Your task to perform on an android device: empty trash in google photos Image 0: 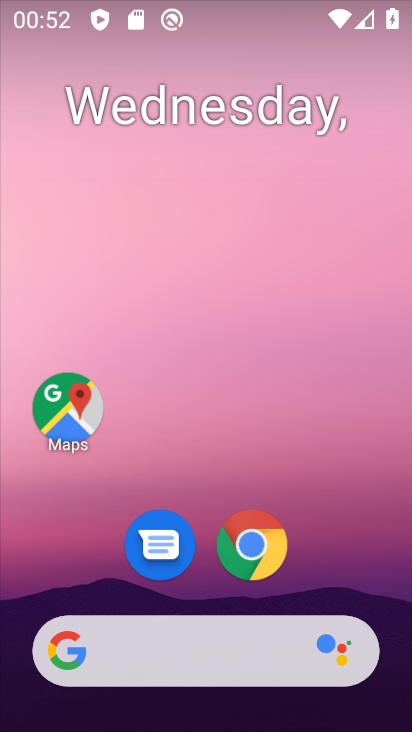
Step 0: drag from (327, 527) to (311, 131)
Your task to perform on an android device: empty trash in google photos Image 1: 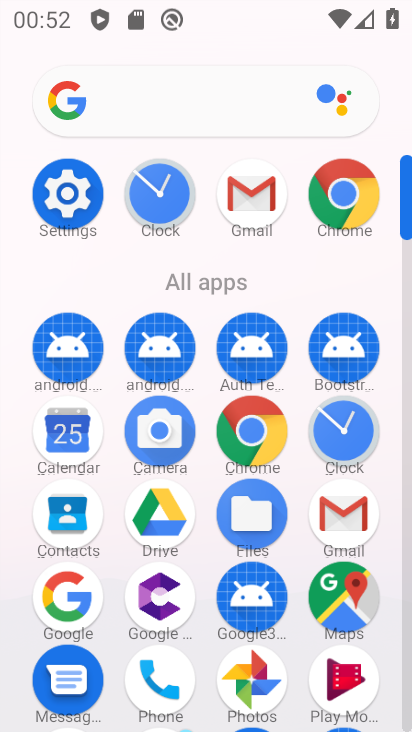
Step 1: click (246, 667)
Your task to perform on an android device: empty trash in google photos Image 2: 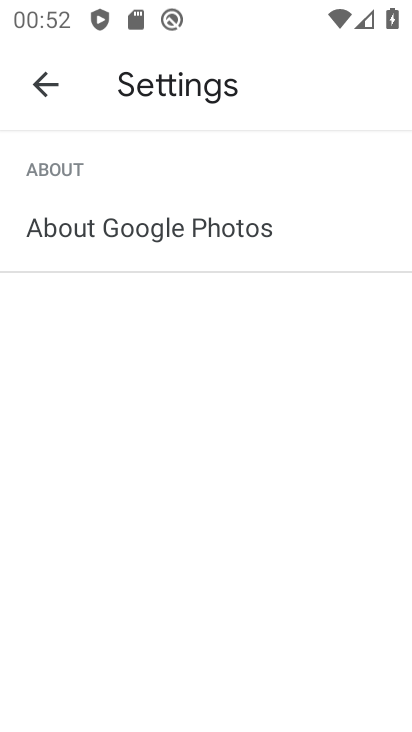
Step 2: click (51, 95)
Your task to perform on an android device: empty trash in google photos Image 3: 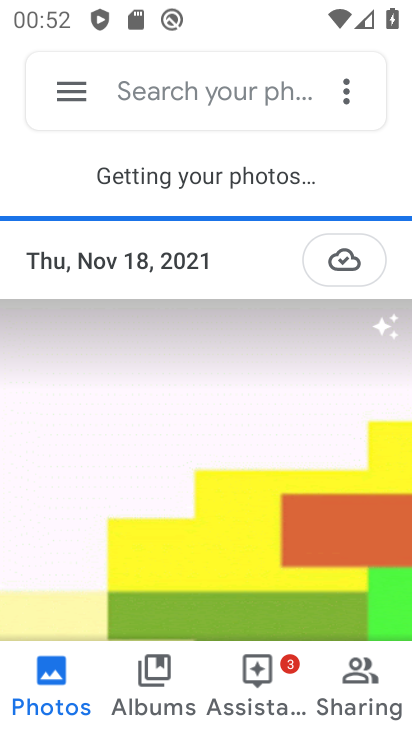
Step 3: click (60, 84)
Your task to perform on an android device: empty trash in google photos Image 4: 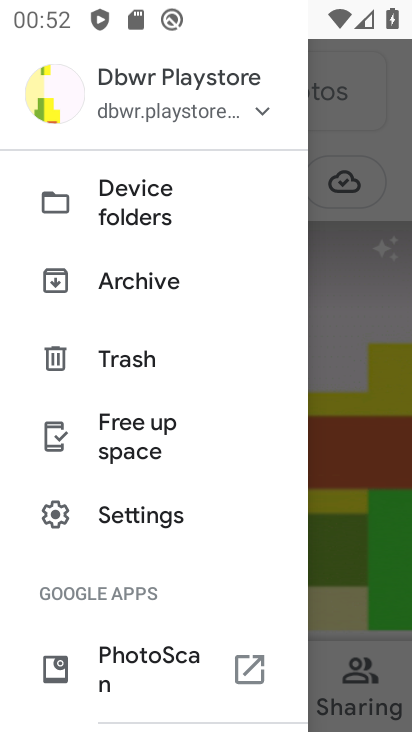
Step 4: click (148, 362)
Your task to perform on an android device: empty trash in google photos Image 5: 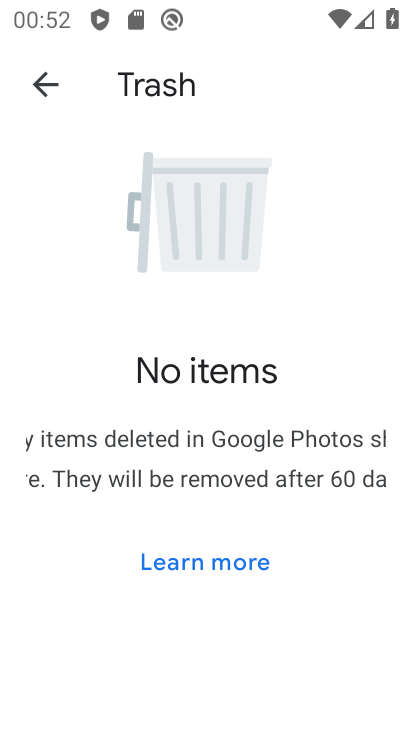
Step 5: task complete